Your task to perform on an android device: Open Android settings Image 0: 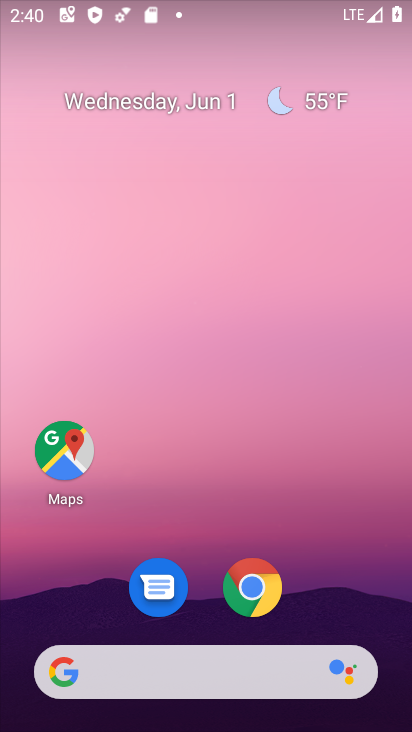
Step 0: drag from (178, 684) to (179, 118)
Your task to perform on an android device: Open Android settings Image 1: 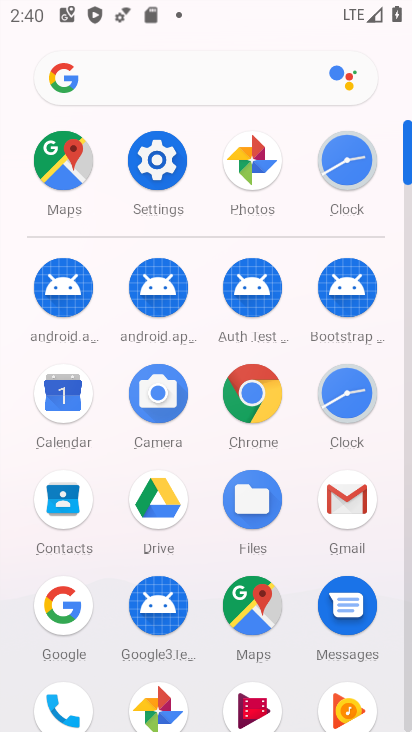
Step 1: click (152, 146)
Your task to perform on an android device: Open Android settings Image 2: 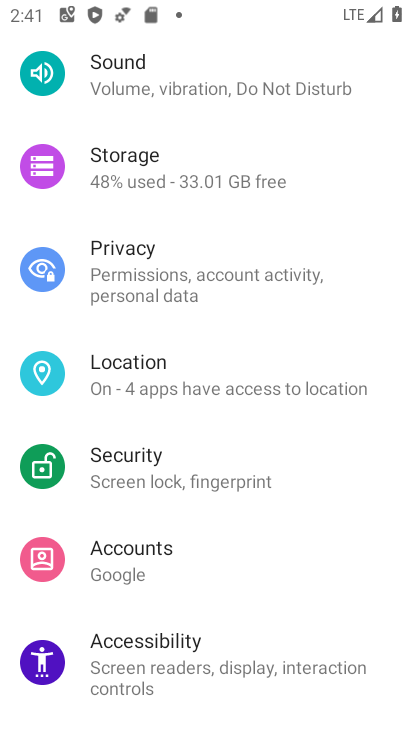
Step 2: task complete